Your task to perform on an android device: Open Yahoo.com Image 0: 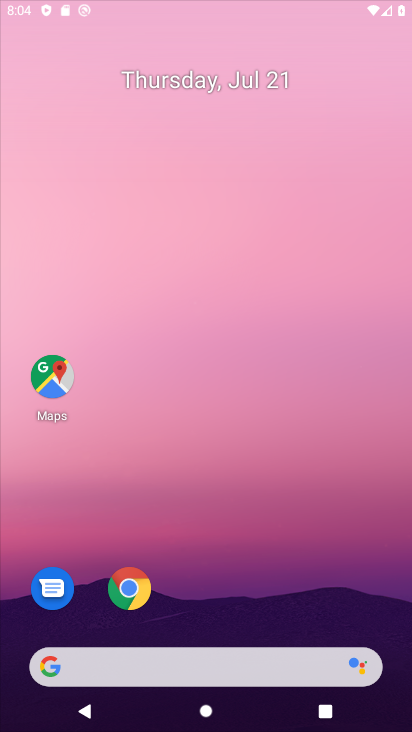
Step 0: drag from (196, 714) to (245, 384)
Your task to perform on an android device: Open Yahoo.com Image 1: 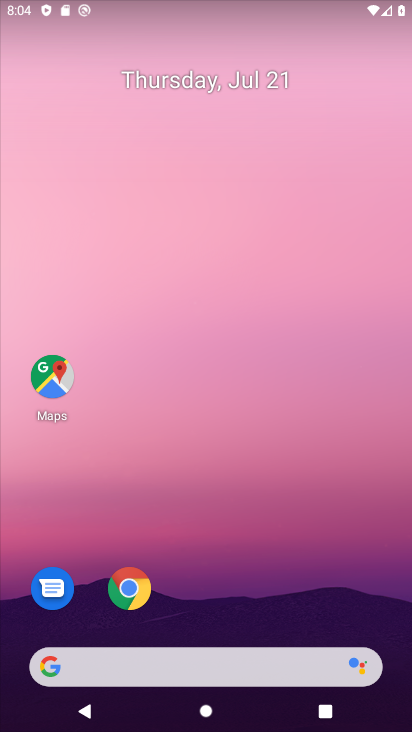
Step 1: drag from (264, 659) to (234, 208)
Your task to perform on an android device: Open Yahoo.com Image 2: 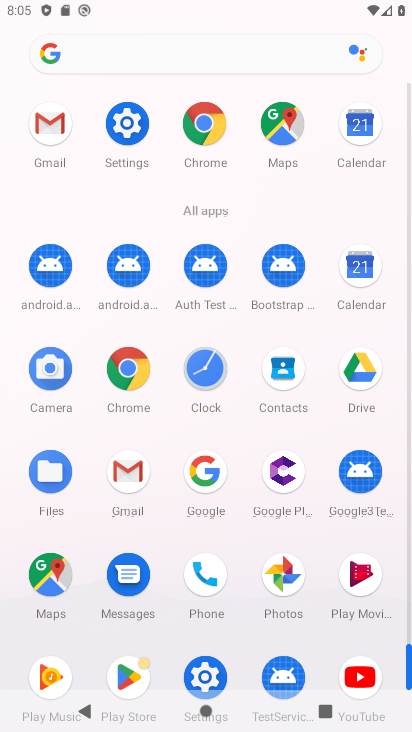
Step 2: click (203, 126)
Your task to perform on an android device: Open Yahoo.com Image 3: 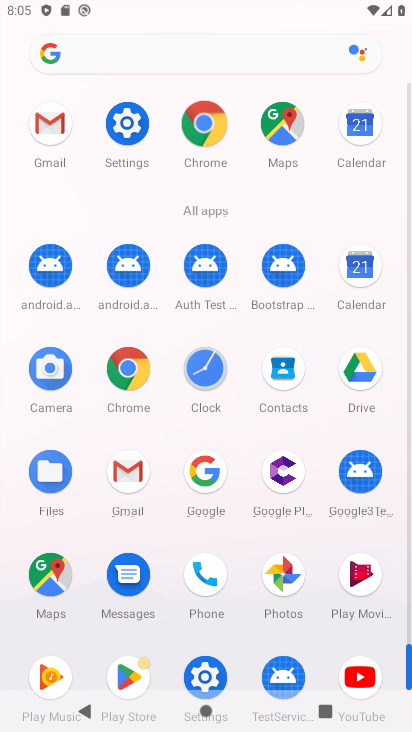
Step 3: click (203, 126)
Your task to perform on an android device: Open Yahoo.com Image 4: 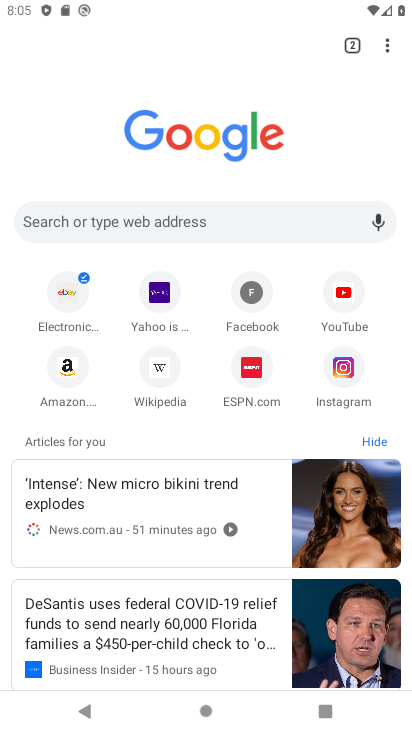
Step 4: click (163, 300)
Your task to perform on an android device: Open Yahoo.com Image 5: 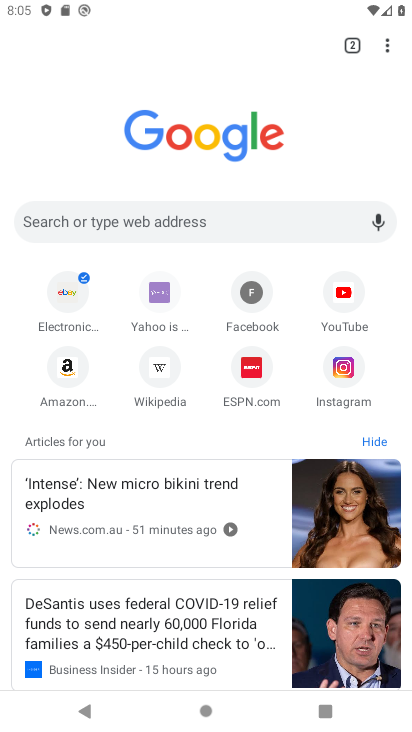
Step 5: click (164, 296)
Your task to perform on an android device: Open Yahoo.com Image 6: 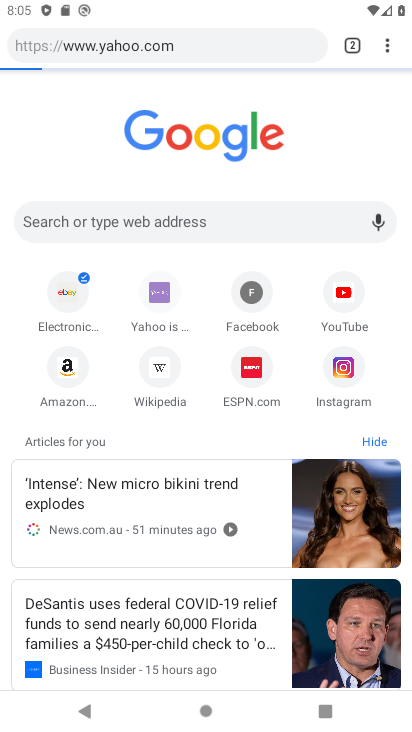
Step 6: click (167, 293)
Your task to perform on an android device: Open Yahoo.com Image 7: 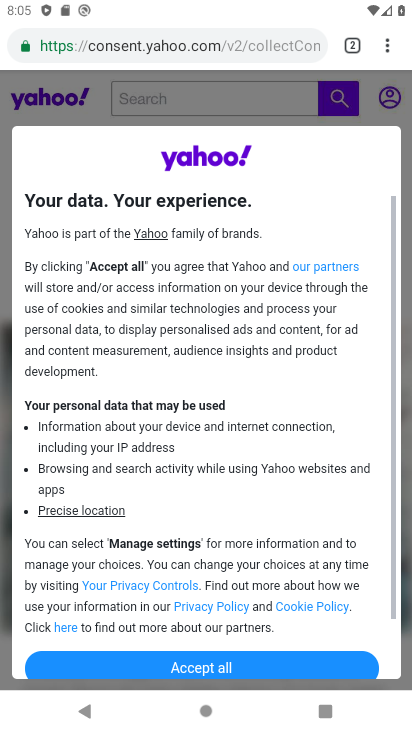
Step 7: task complete